Your task to perform on an android device: Is it going to rain this weekend? Image 0: 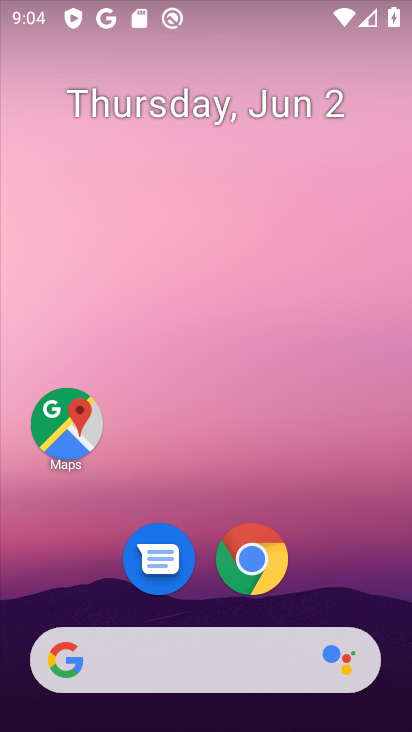
Step 0: click (133, 658)
Your task to perform on an android device: Is it going to rain this weekend? Image 1: 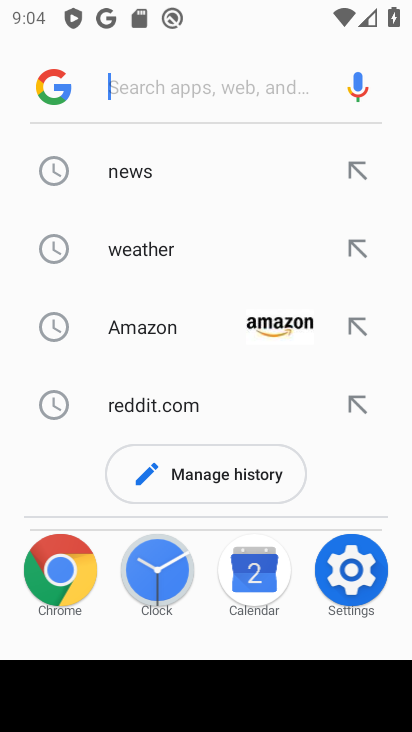
Step 1: type "weather this weekend"
Your task to perform on an android device: Is it going to rain this weekend? Image 2: 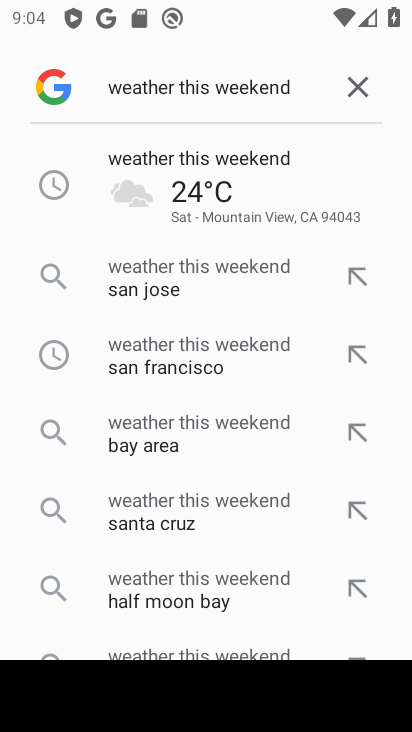
Step 2: click (278, 205)
Your task to perform on an android device: Is it going to rain this weekend? Image 3: 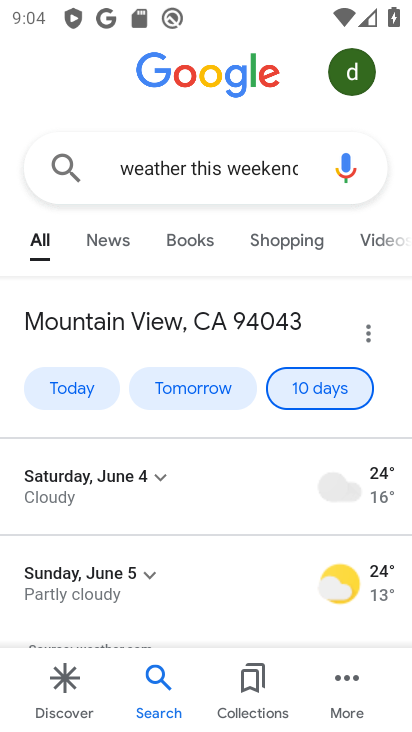
Step 3: click (160, 486)
Your task to perform on an android device: Is it going to rain this weekend? Image 4: 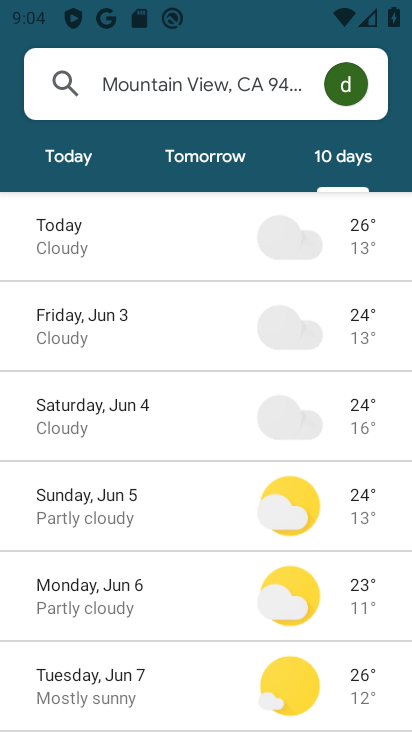
Step 4: click (151, 448)
Your task to perform on an android device: Is it going to rain this weekend? Image 5: 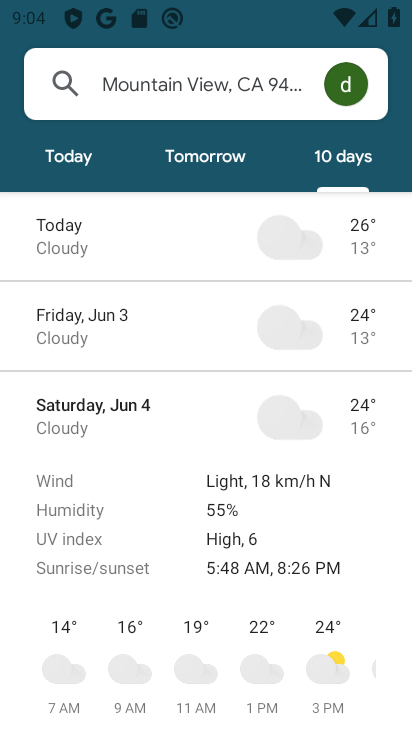
Step 5: drag from (217, 517) to (244, 212)
Your task to perform on an android device: Is it going to rain this weekend? Image 6: 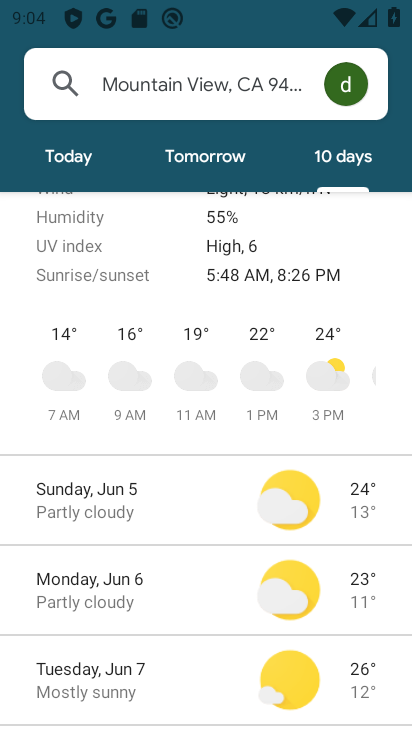
Step 6: click (177, 489)
Your task to perform on an android device: Is it going to rain this weekend? Image 7: 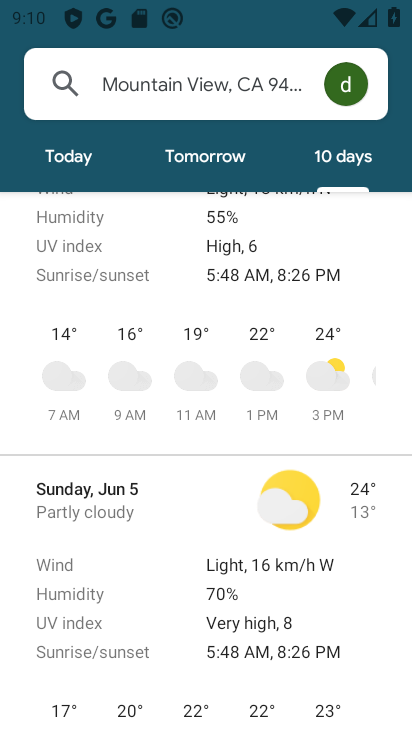
Step 7: task complete